Your task to perform on an android device: toggle wifi Image 0: 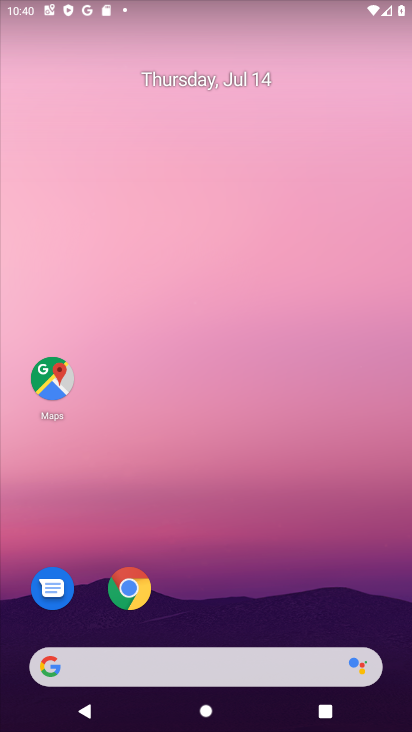
Step 0: drag from (182, 662) to (356, 158)
Your task to perform on an android device: toggle wifi Image 1: 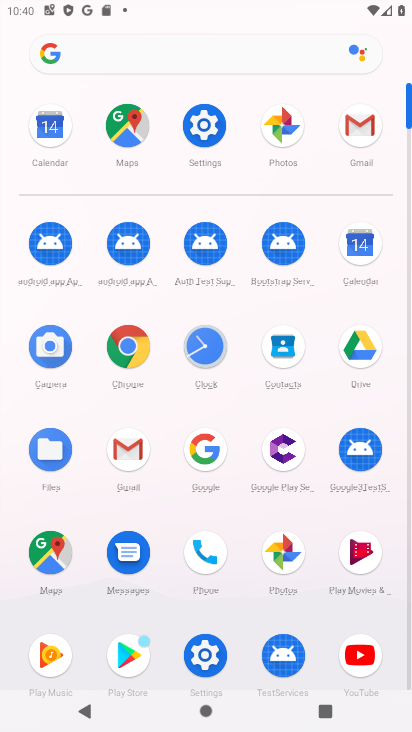
Step 1: click (211, 122)
Your task to perform on an android device: toggle wifi Image 2: 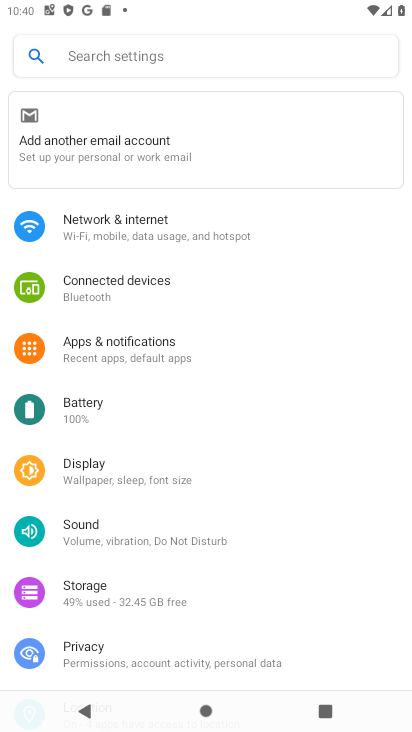
Step 2: click (140, 222)
Your task to perform on an android device: toggle wifi Image 3: 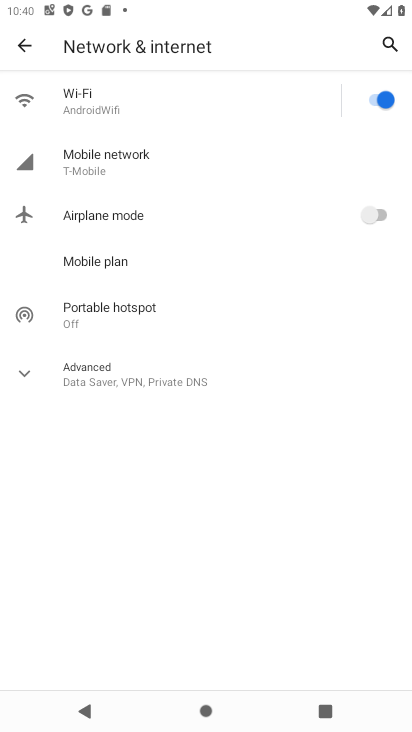
Step 3: click (374, 100)
Your task to perform on an android device: toggle wifi Image 4: 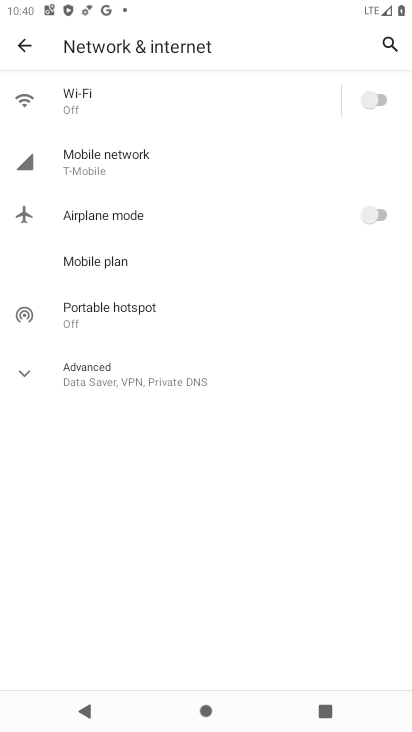
Step 4: task complete